Your task to perform on an android device: Open sound settings Image 0: 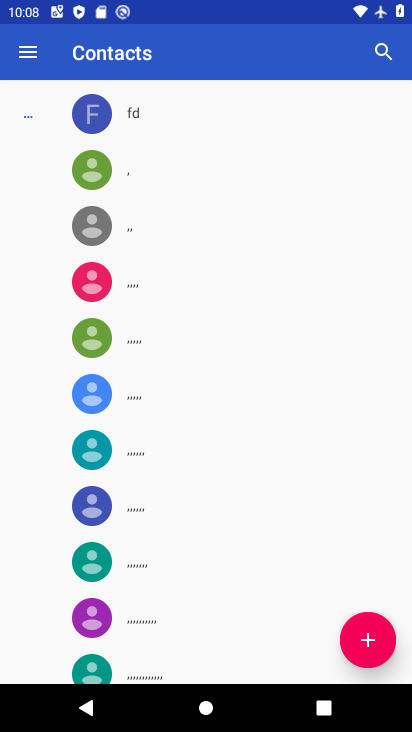
Step 0: press home button
Your task to perform on an android device: Open sound settings Image 1: 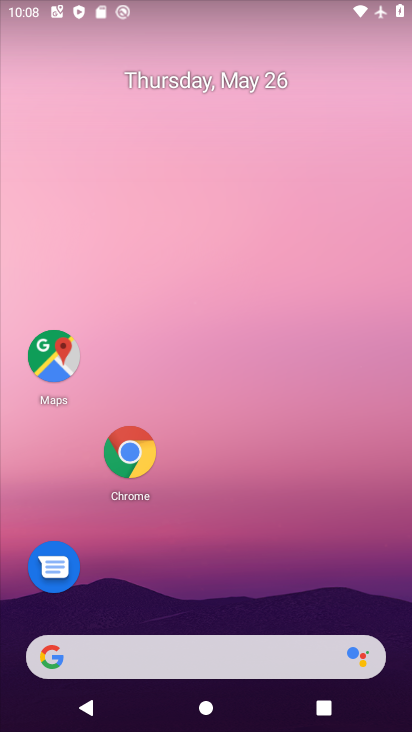
Step 1: drag from (214, 655) to (328, 25)
Your task to perform on an android device: Open sound settings Image 2: 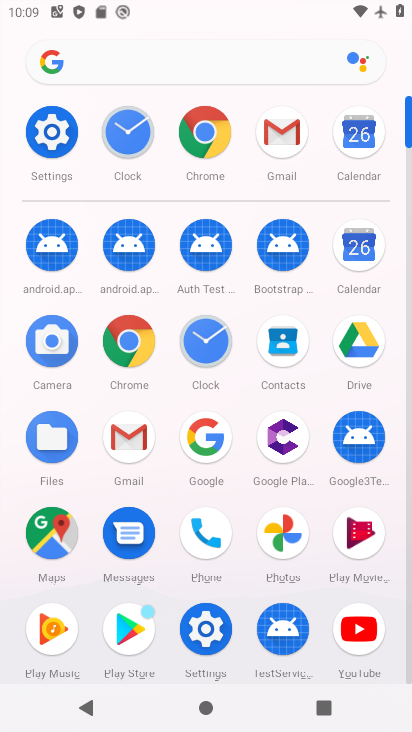
Step 2: click (53, 131)
Your task to perform on an android device: Open sound settings Image 3: 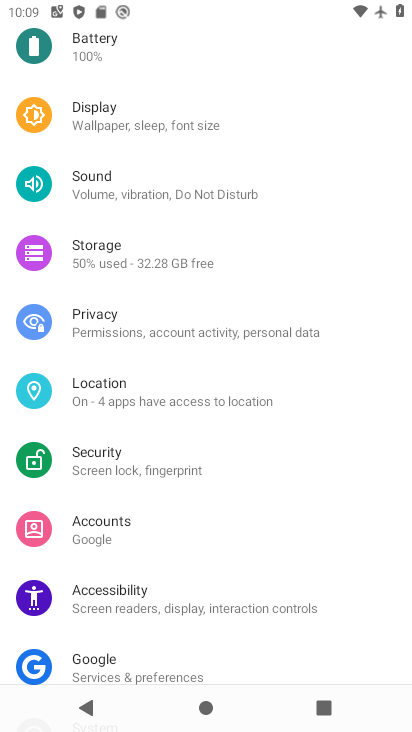
Step 3: click (124, 190)
Your task to perform on an android device: Open sound settings Image 4: 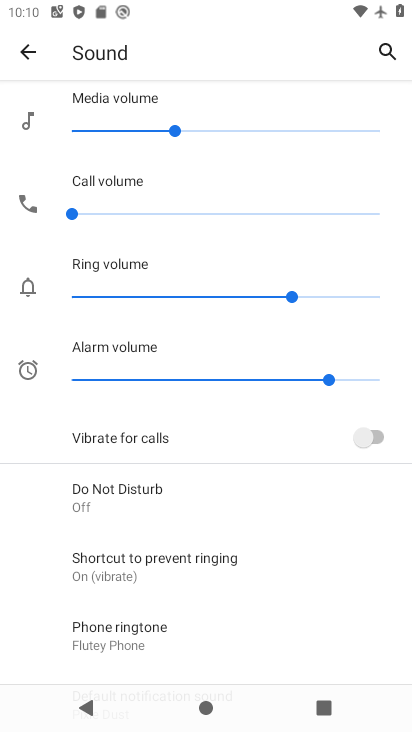
Step 4: task complete